Your task to perform on an android device: open a bookmark in the chrome app Image 0: 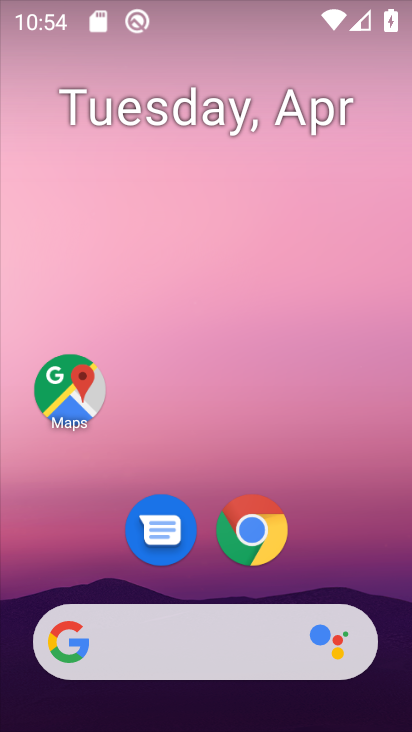
Step 0: drag from (178, 630) to (275, 56)
Your task to perform on an android device: open a bookmark in the chrome app Image 1: 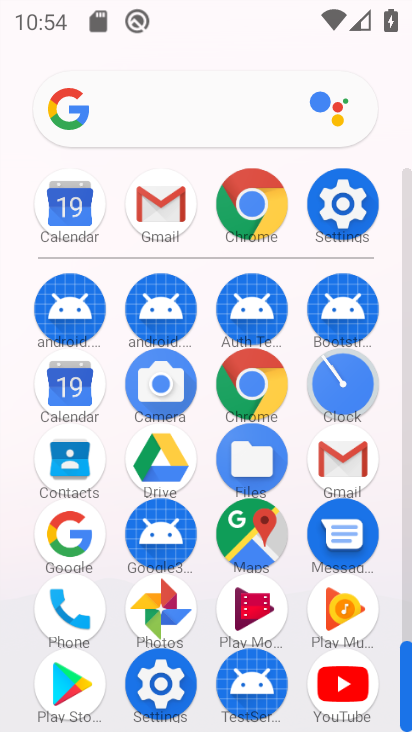
Step 1: click (255, 211)
Your task to perform on an android device: open a bookmark in the chrome app Image 2: 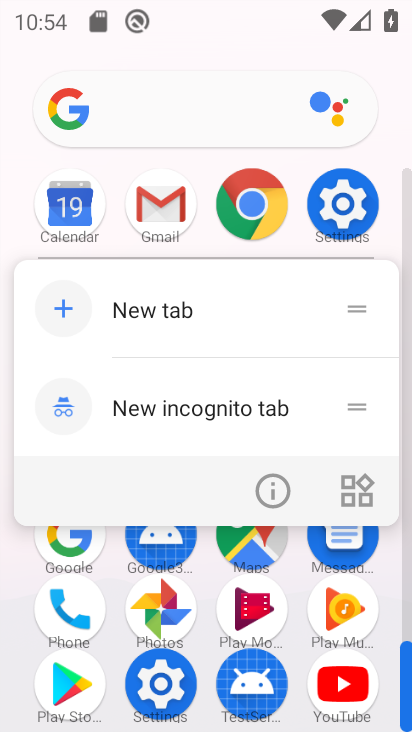
Step 2: click (253, 212)
Your task to perform on an android device: open a bookmark in the chrome app Image 3: 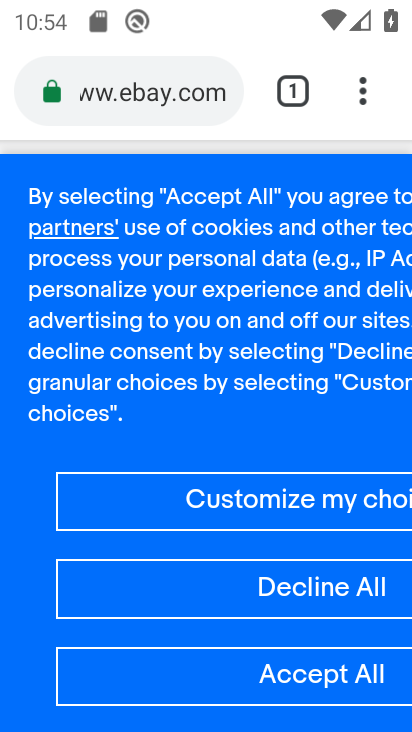
Step 3: click (365, 95)
Your task to perform on an android device: open a bookmark in the chrome app Image 4: 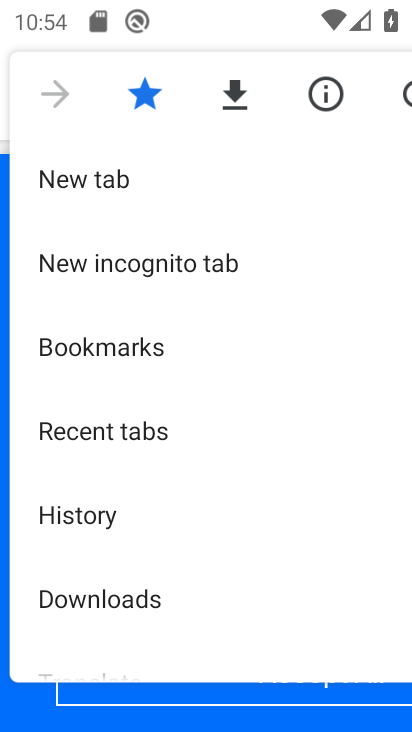
Step 4: click (130, 349)
Your task to perform on an android device: open a bookmark in the chrome app Image 5: 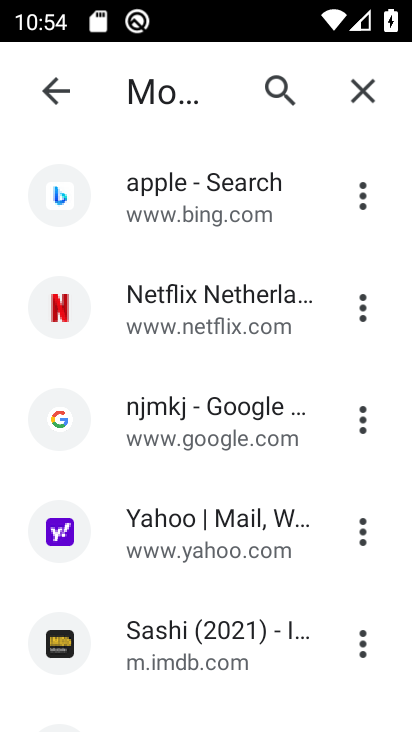
Step 5: task complete